Your task to perform on an android device: toggle data saver in the chrome app Image 0: 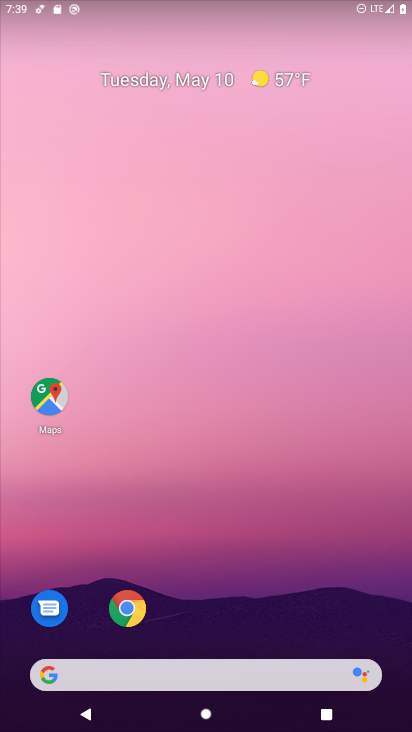
Step 0: drag from (326, 613) to (231, 79)
Your task to perform on an android device: toggle data saver in the chrome app Image 1: 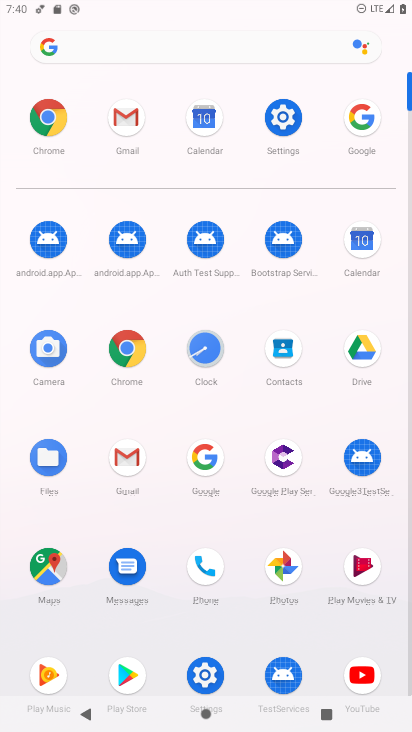
Step 1: click (135, 342)
Your task to perform on an android device: toggle data saver in the chrome app Image 2: 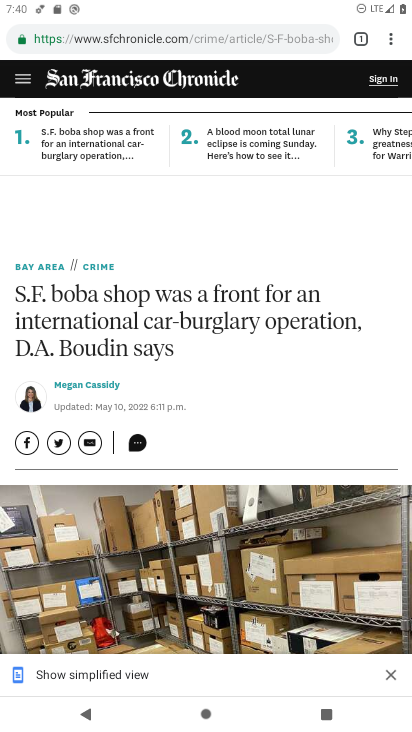
Step 2: press back button
Your task to perform on an android device: toggle data saver in the chrome app Image 3: 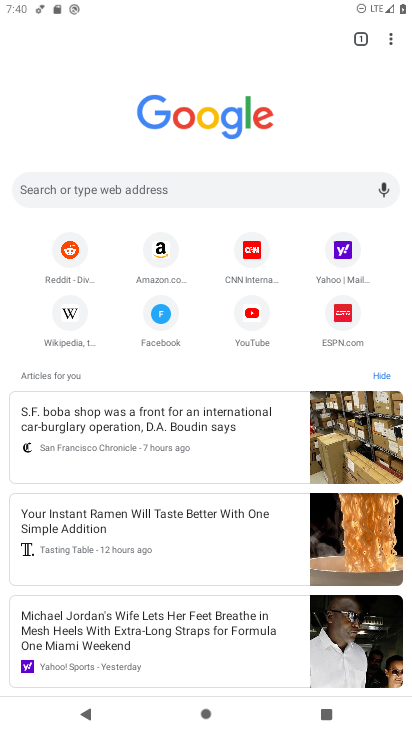
Step 3: click (388, 36)
Your task to perform on an android device: toggle data saver in the chrome app Image 4: 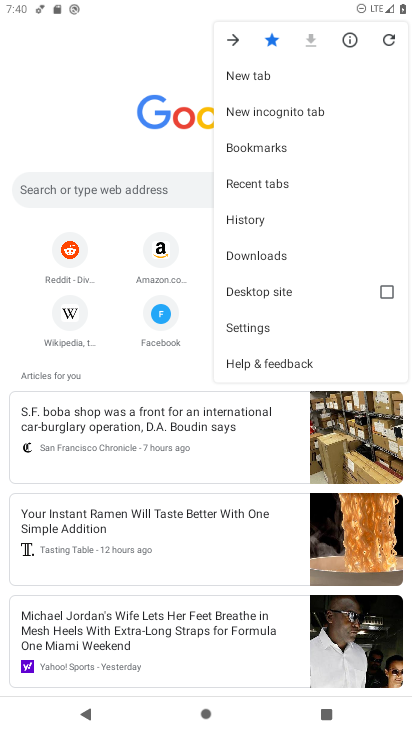
Step 4: click (270, 323)
Your task to perform on an android device: toggle data saver in the chrome app Image 5: 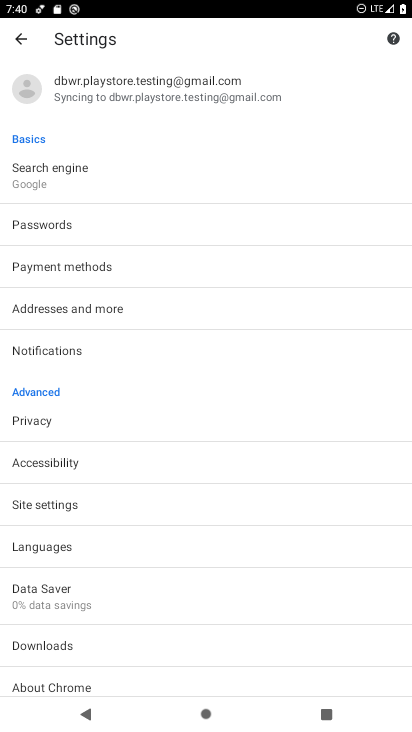
Step 5: click (108, 600)
Your task to perform on an android device: toggle data saver in the chrome app Image 6: 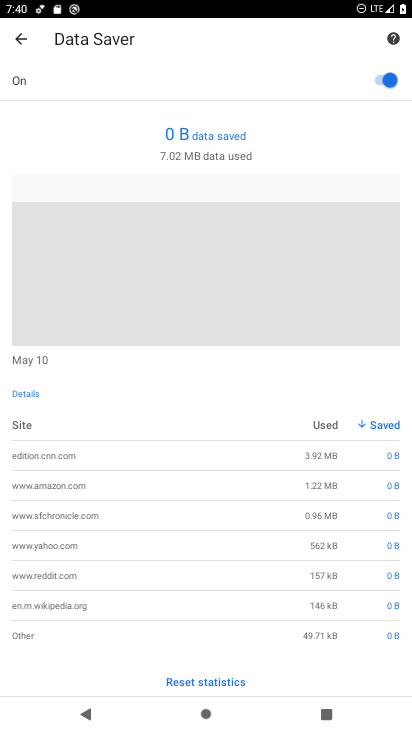
Step 6: click (366, 85)
Your task to perform on an android device: toggle data saver in the chrome app Image 7: 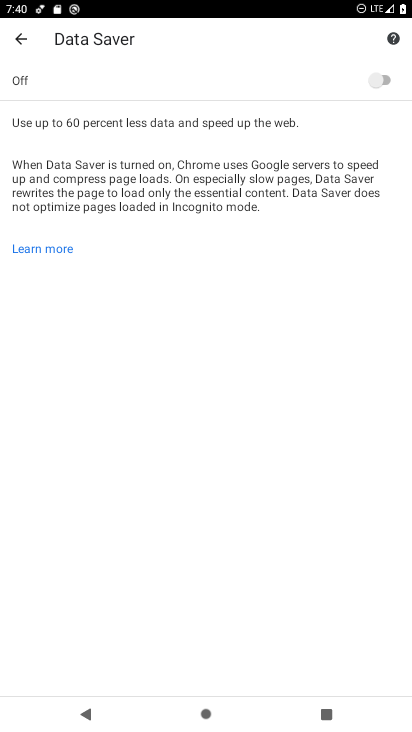
Step 7: task complete